Your task to perform on an android device: turn on javascript in the chrome app Image 0: 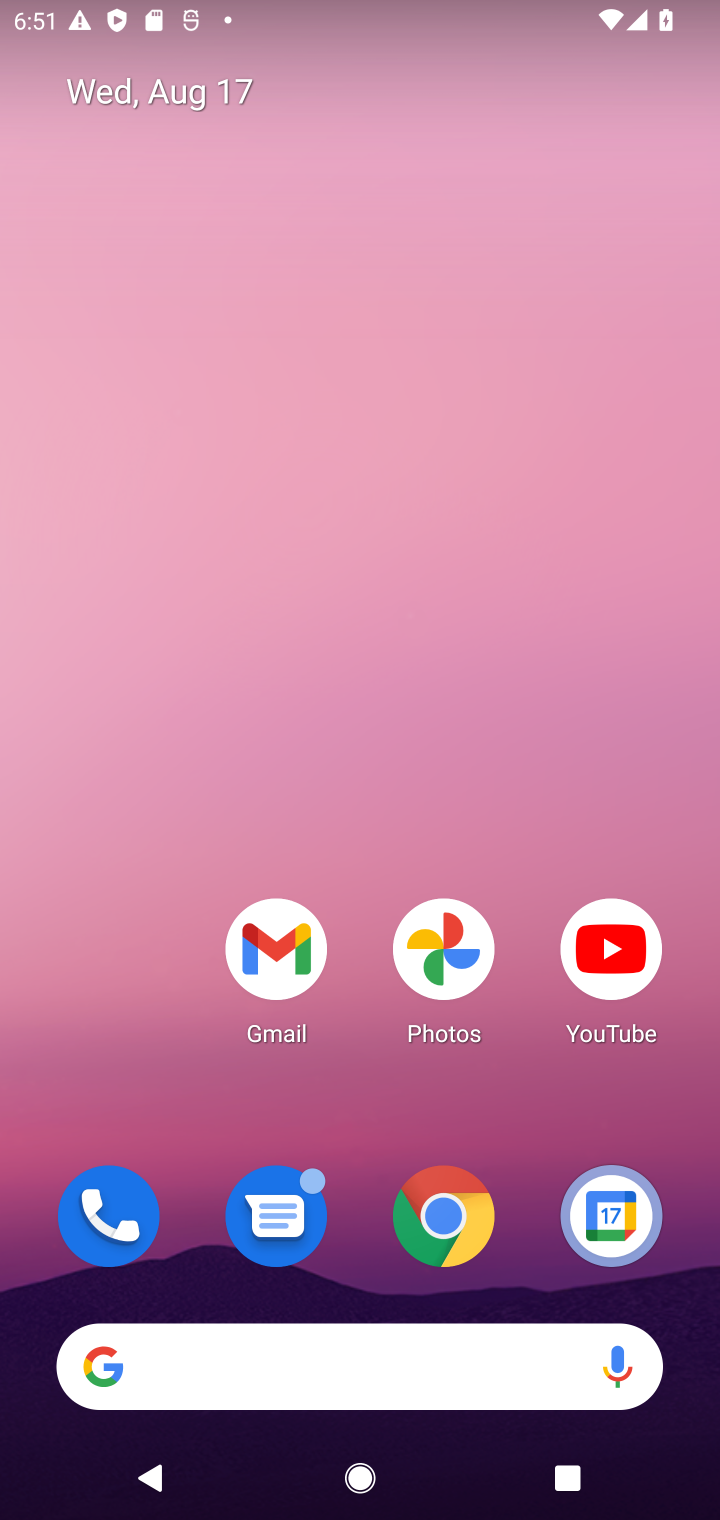
Step 0: drag from (525, 1251) to (666, 23)
Your task to perform on an android device: turn on javascript in the chrome app Image 1: 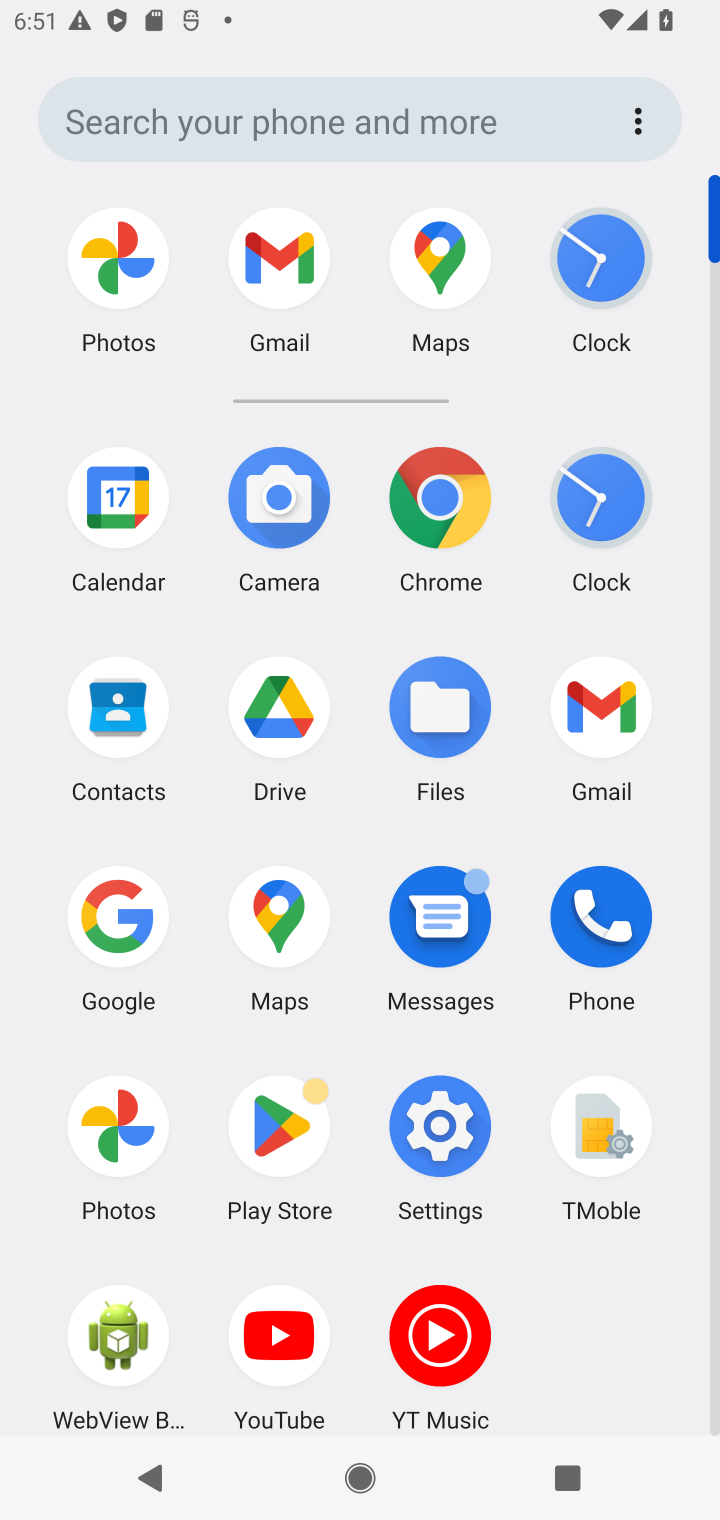
Step 1: click (434, 483)
Your task to perform on an android device: turn on javascript in the chrome app Image 2: 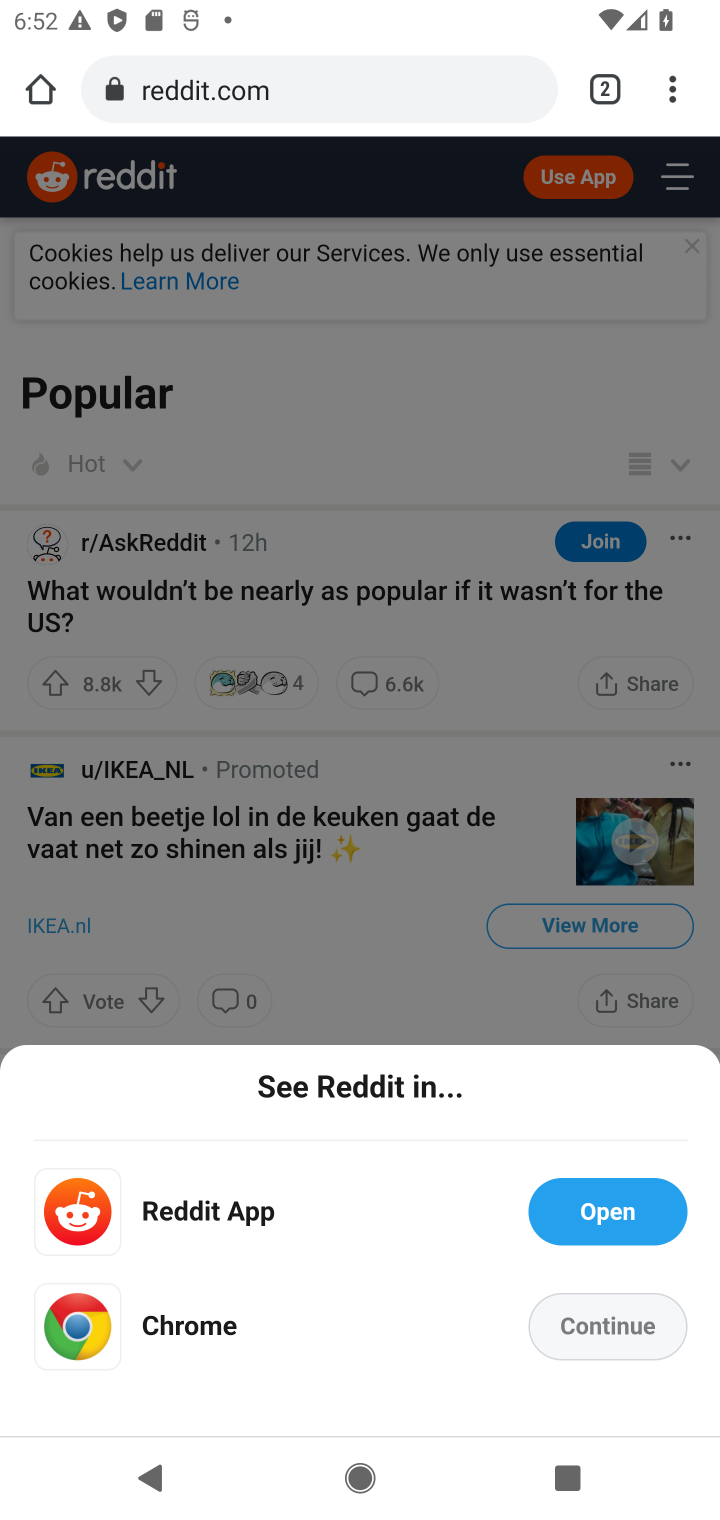
Step 2: drag from (668, 93) to (396, 1228)
Your task to perform on an android device: turn on javascript in the chrome app Image 3: 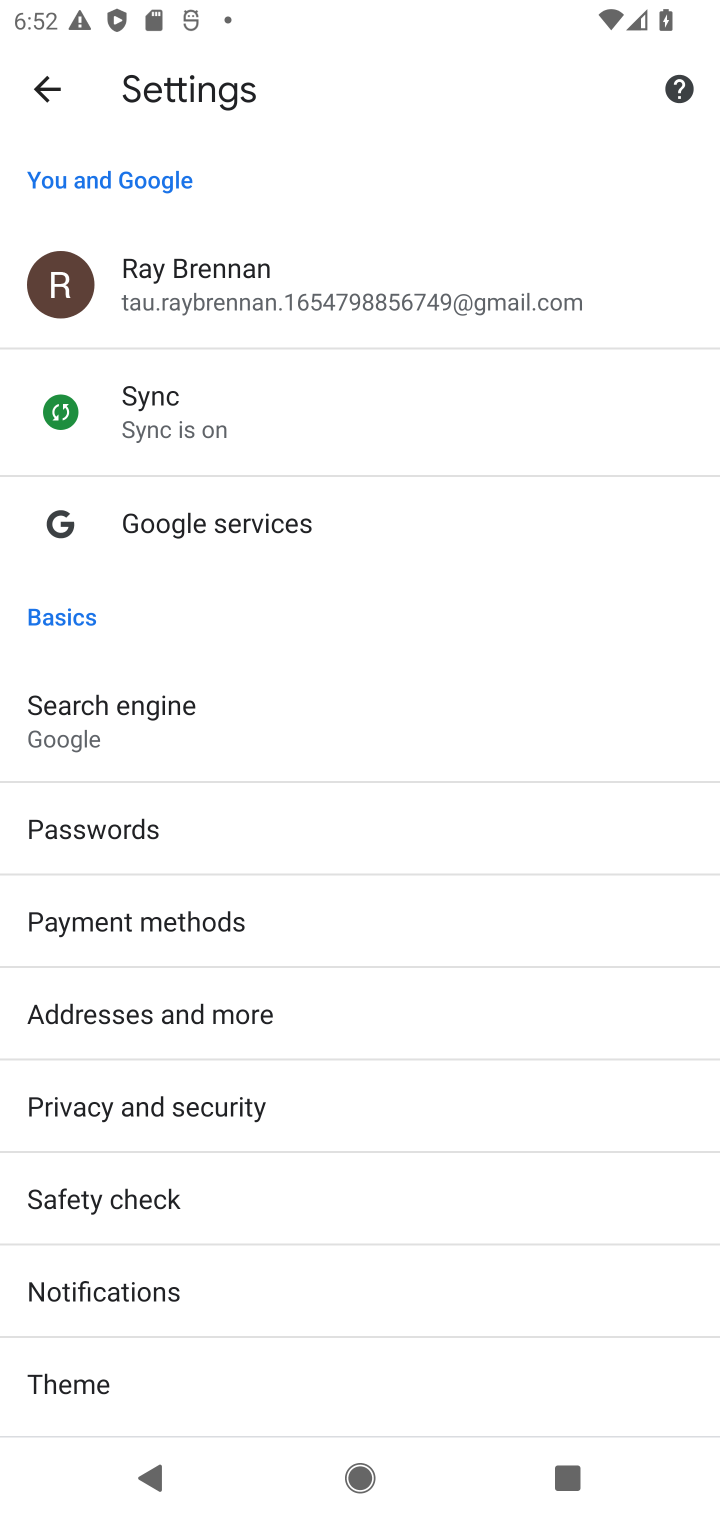
Step 3: drag from (410, 1257) to (515, 469)
Your task to perform on an android device: turn on javascript in the chrome app Image 4: 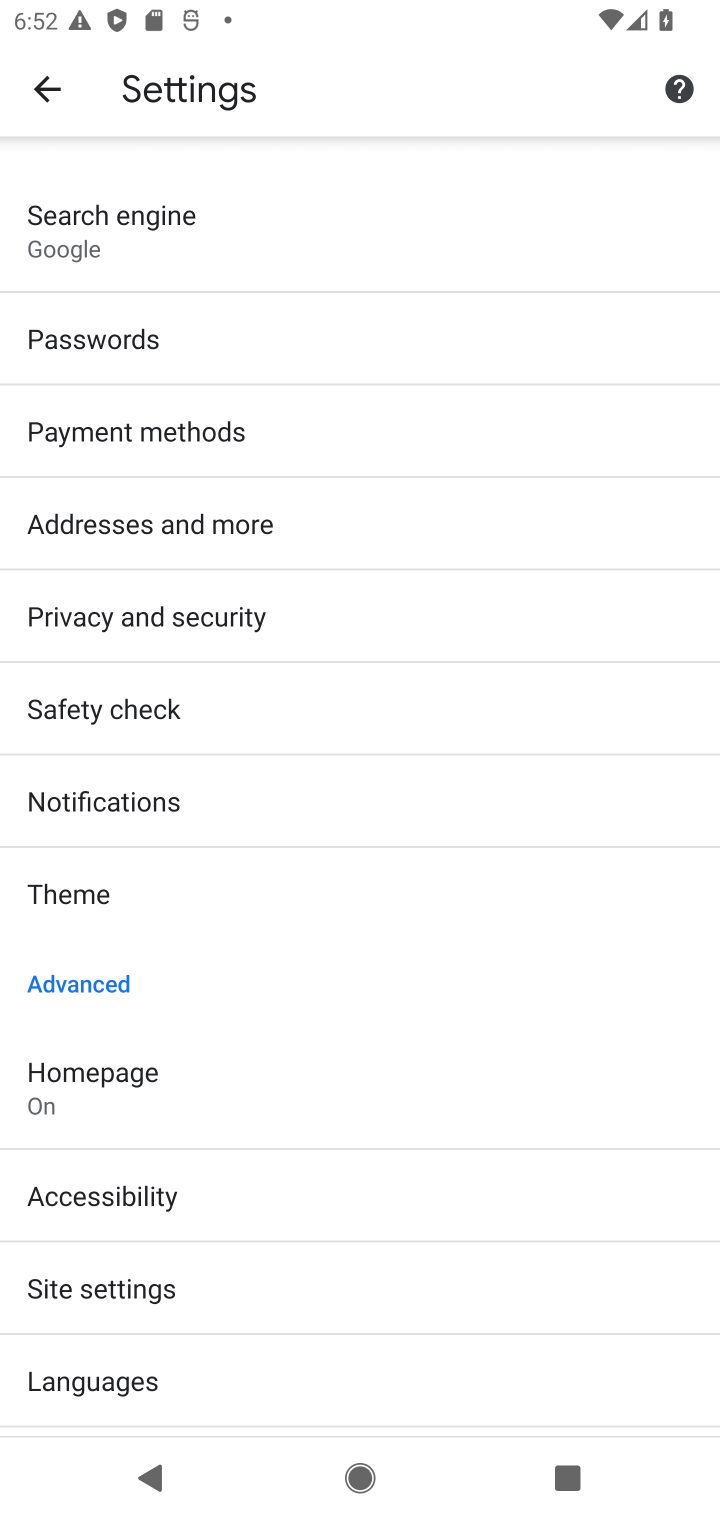
Step 4: click (177, 1272)
Your task to perform on an android device: turn on javascript in the chrome app Image 5: 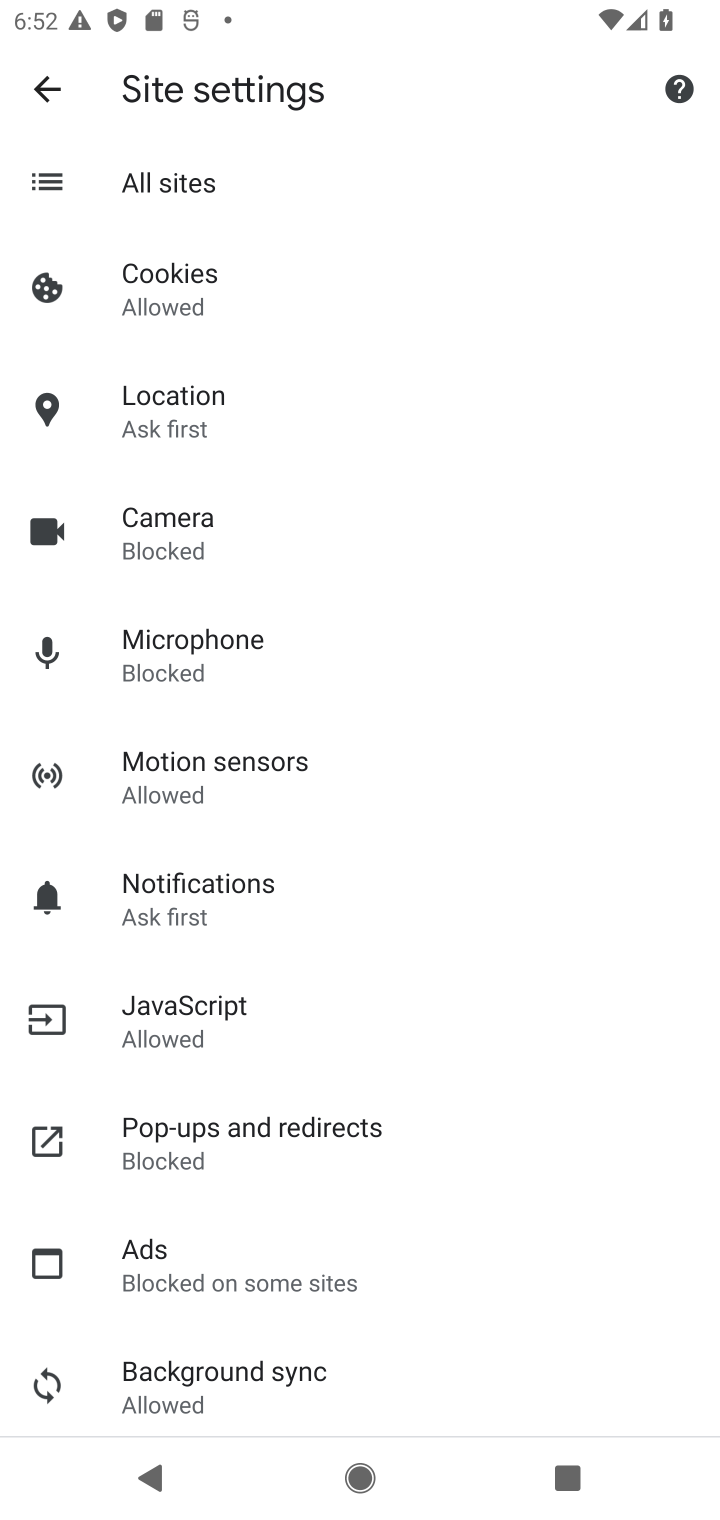
Step 5: click (178, 994)
Your task to perform on an android device: turn on javascript in the chrome app Image 6: 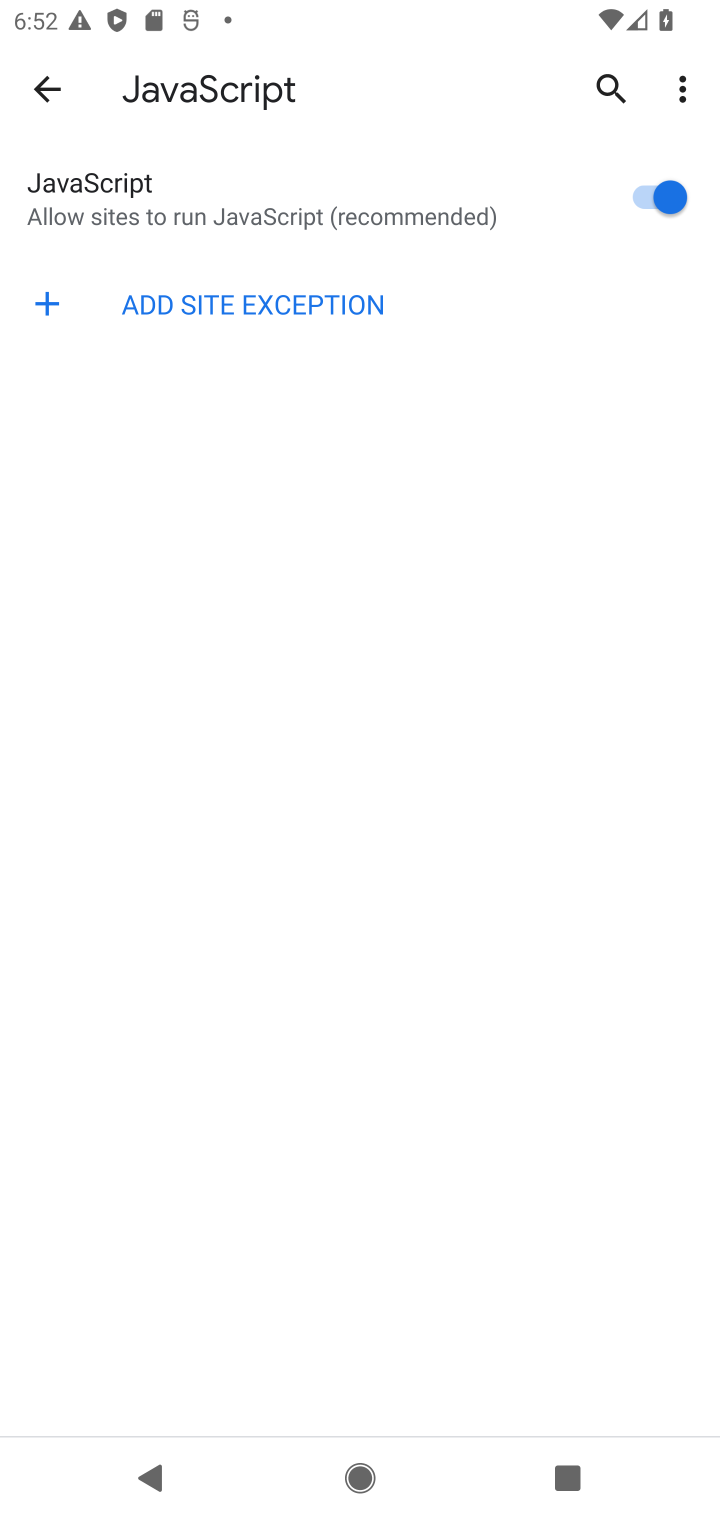
Step 6: task complete